Your task to perform on an android device: toggle sleep mode Image 0: 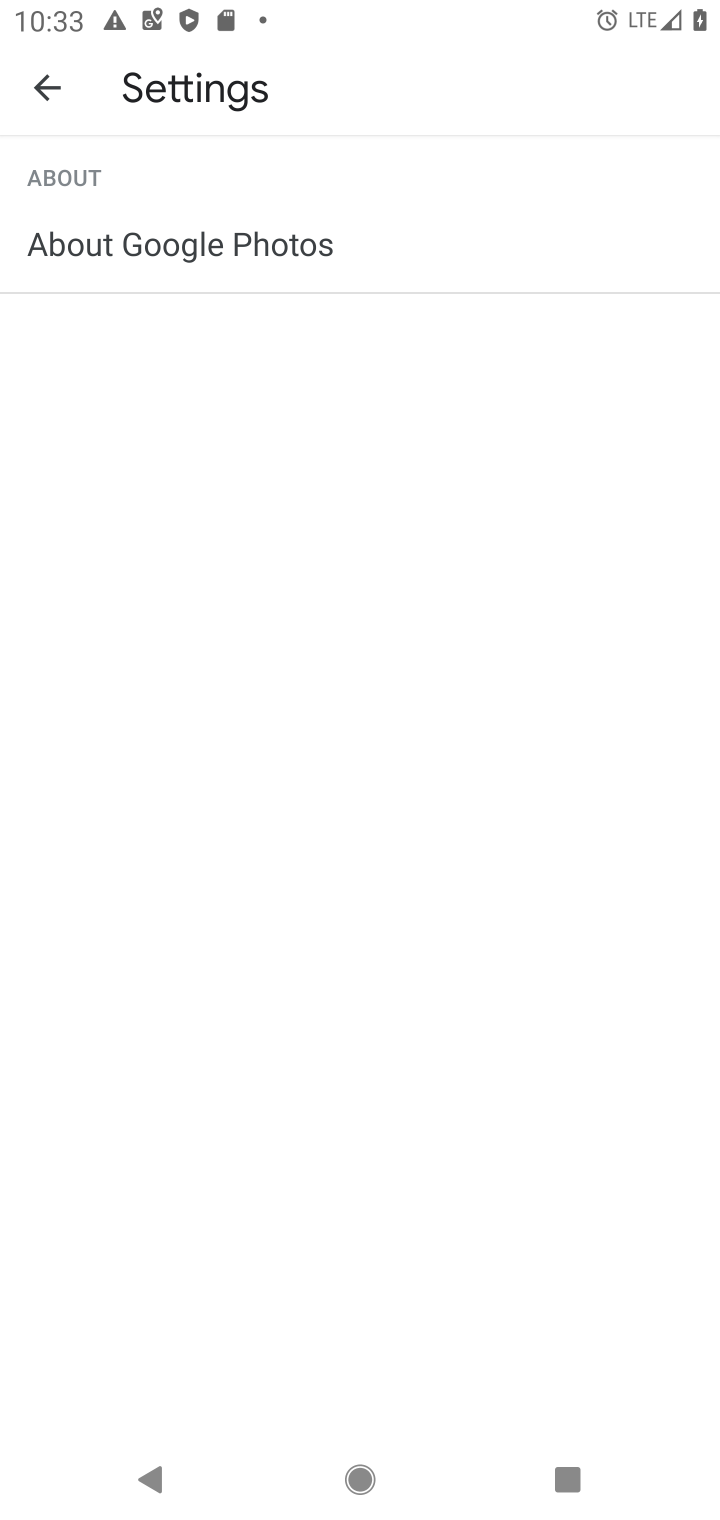
Step 0: press home button
Your task to perform on an android device: toggle sleep mode Image 1: 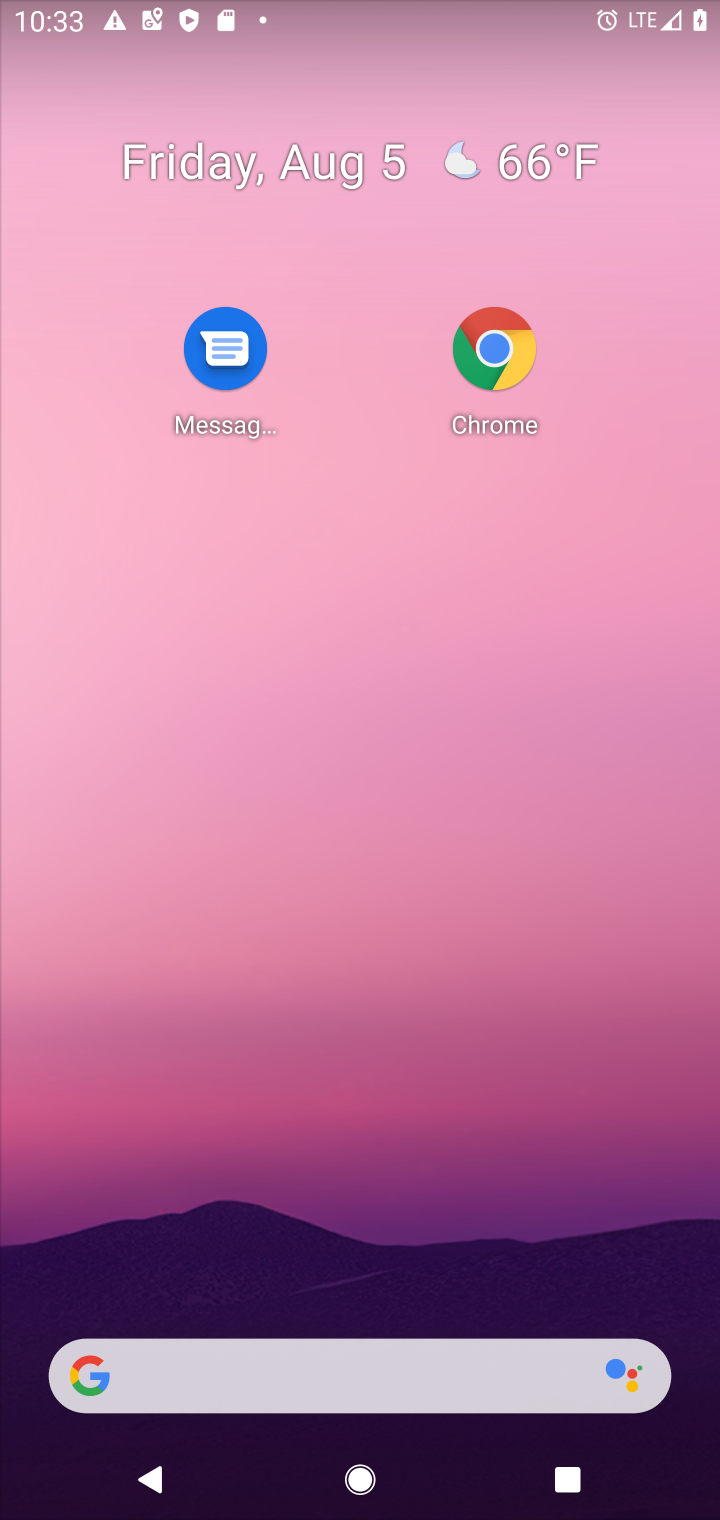
Step 1: drag from (468, 1387) to (491, 184)
Your task to perform on an android device: toggle sleep mode Image 2: 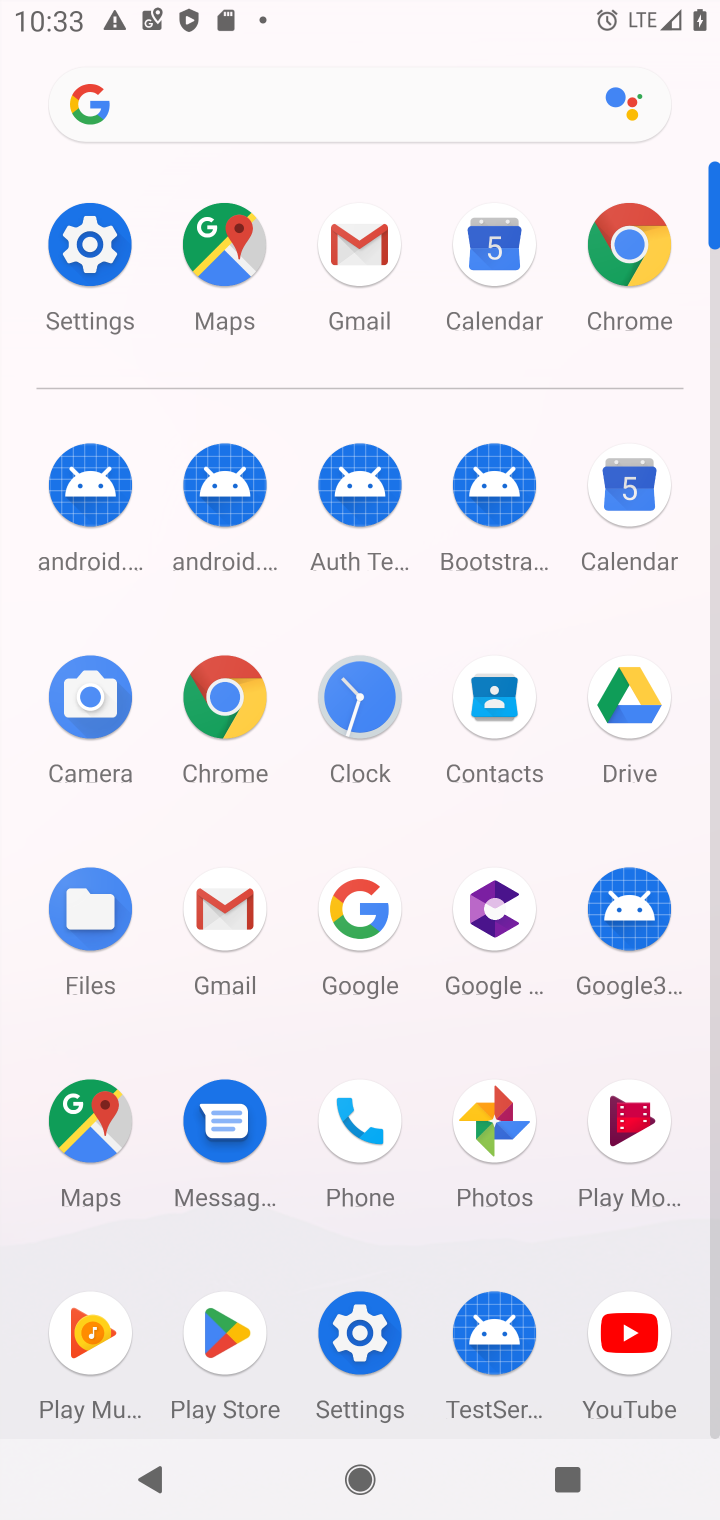
Step 2: click (91, 250)
Your task to perform on an android device: toggle sleep mode Image 3: 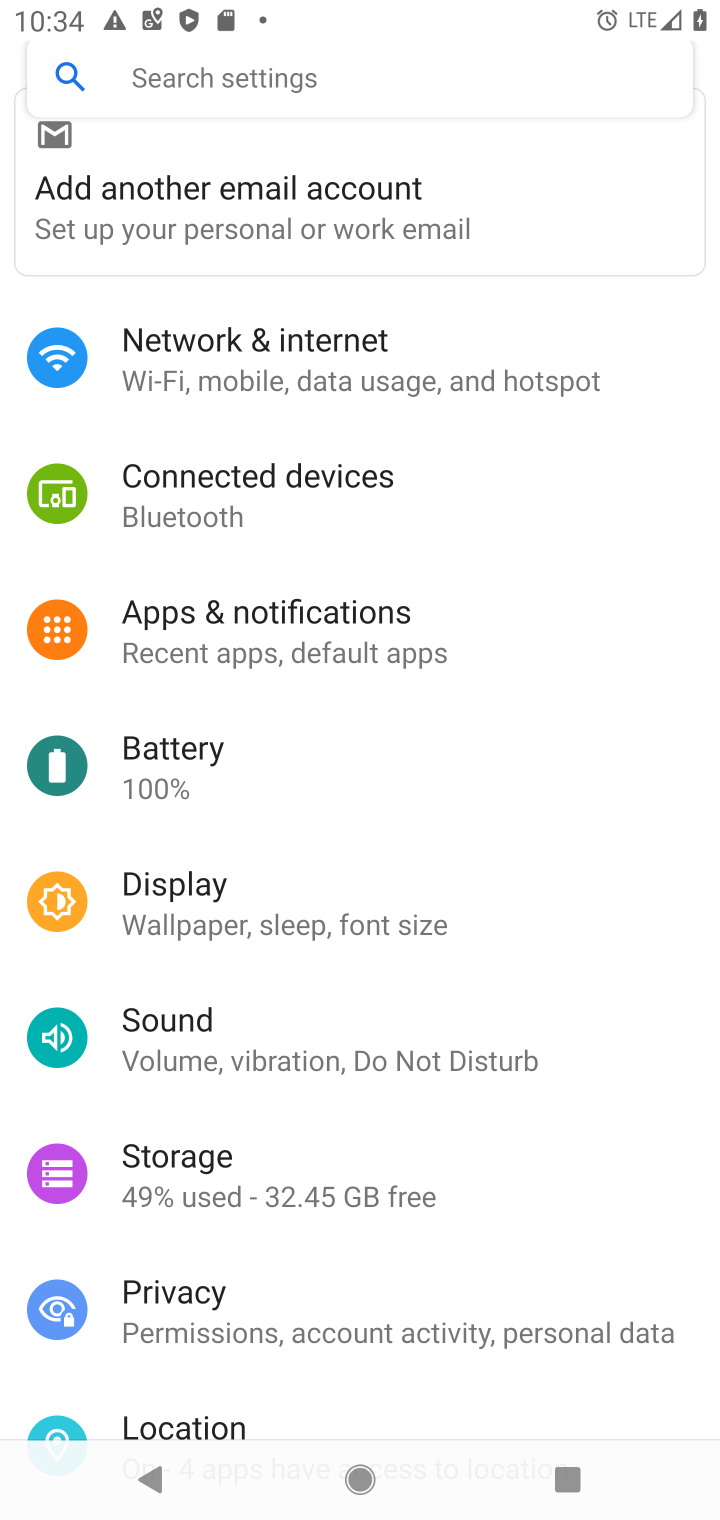
Step 3: click (234, 82)
Your task to perform on an android device: toggle sleep mode Image 4: 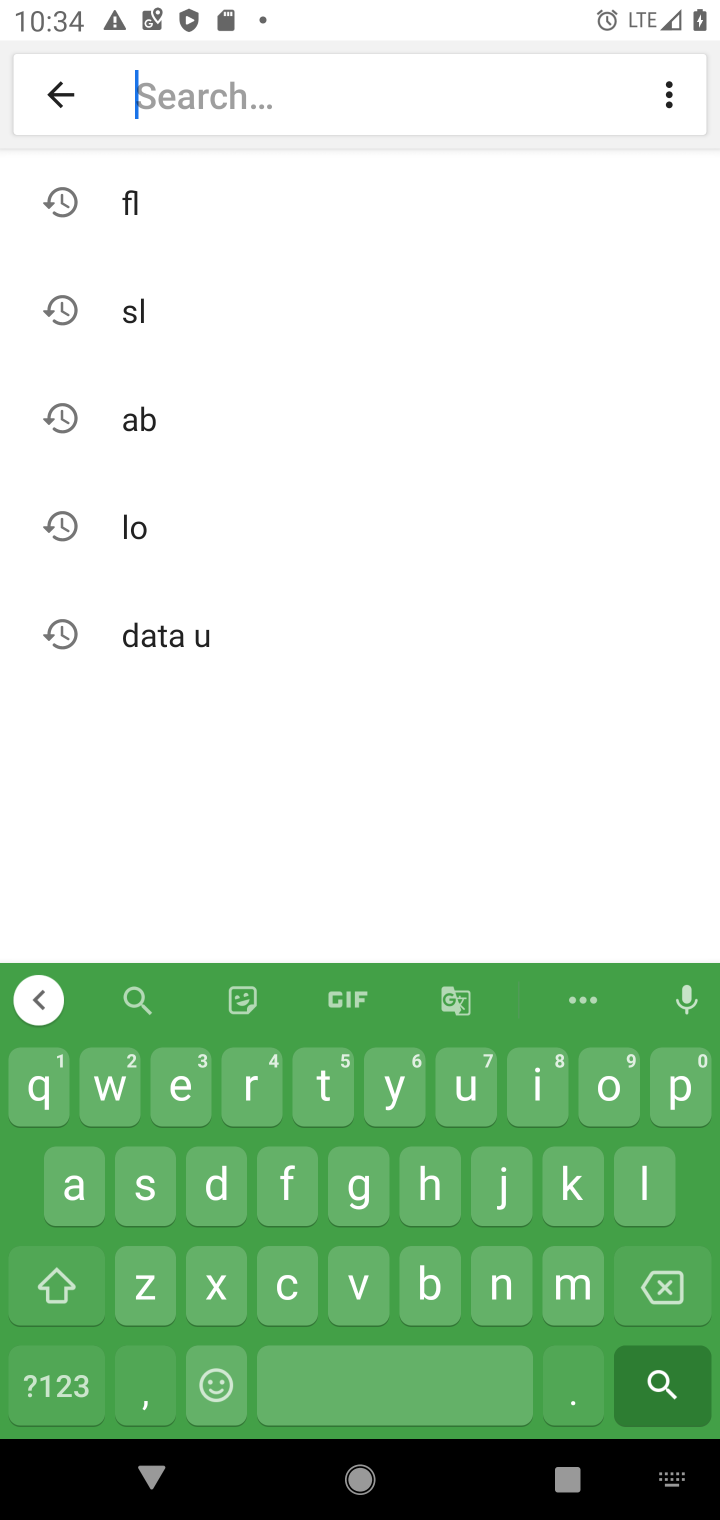
Step 4: click (158, 315)
Your task to perform on an android device: toggle sleep mode Image 5: 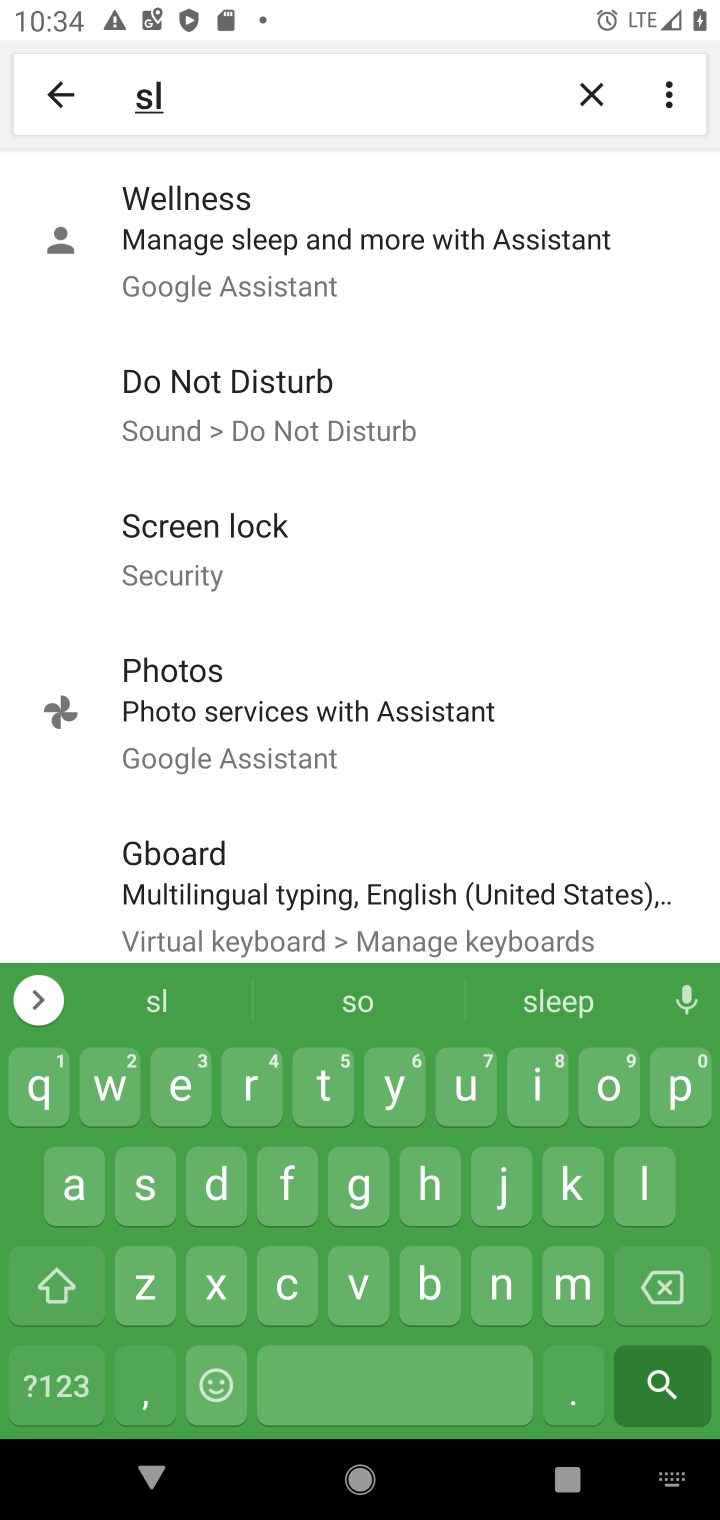
Step 5: click (210, 411)
Your task to perform on an android device: toggle sleep mode Image 6: 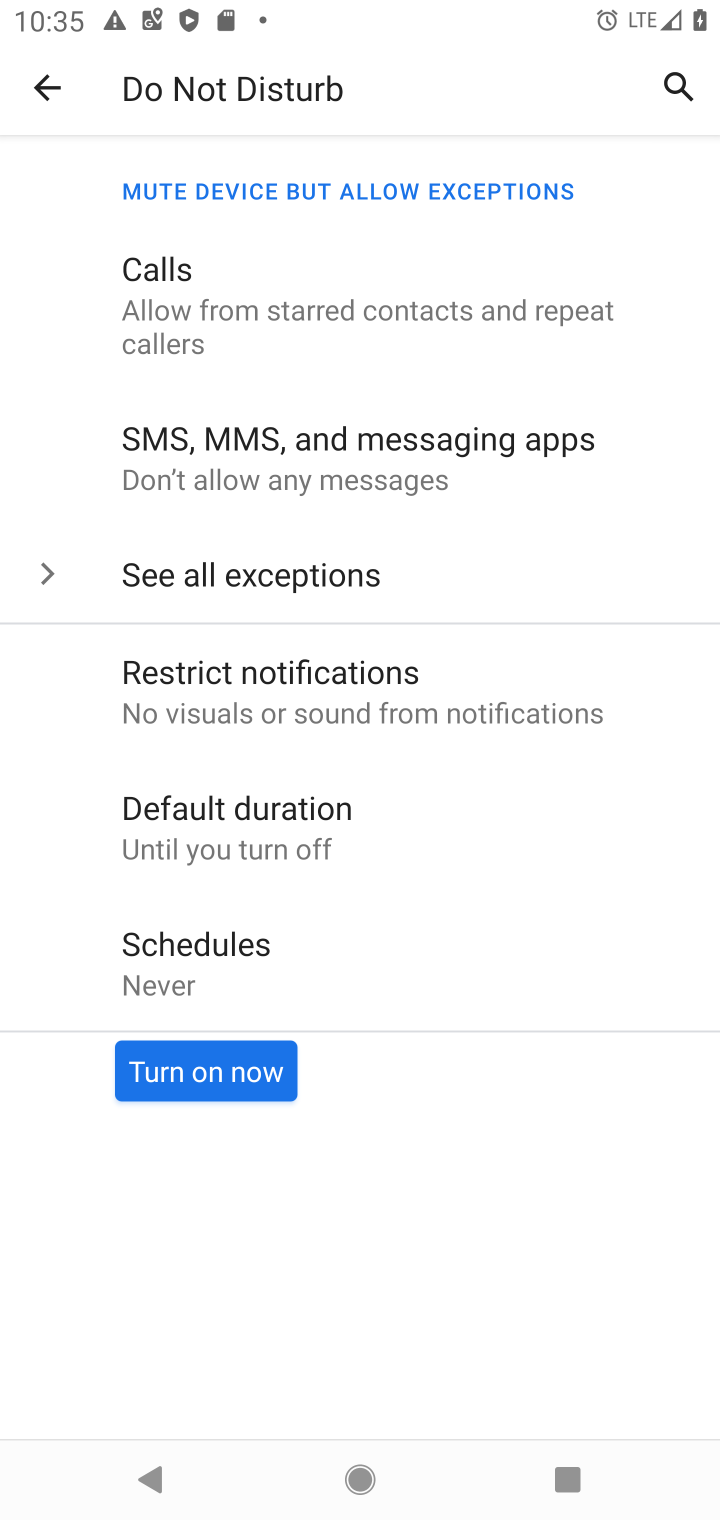
Step 6: task complete